Your task to perform on an android device: Open Chrome and go to the settings page Image 0: 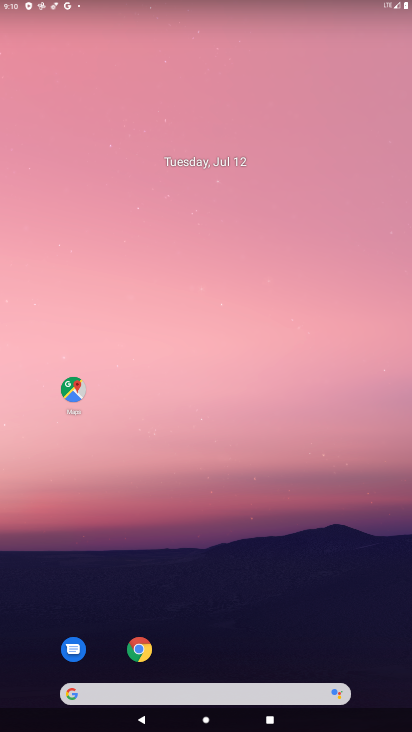
Step 0: click (137, 639)
Your task to perform on an android device: Open Chrome and go to the settings page Image 1: 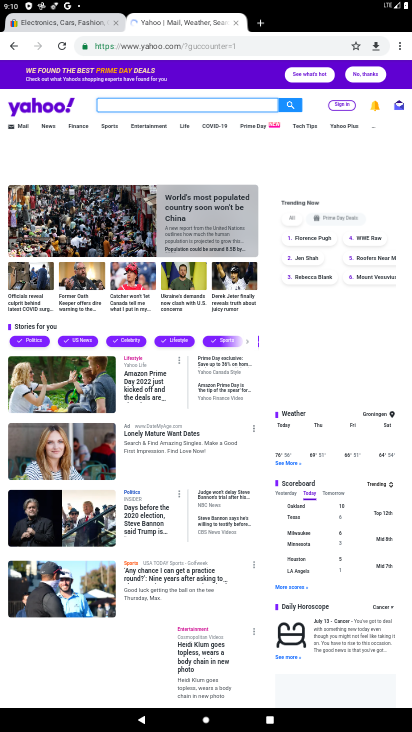
Step 1: click (407, 47)
Your task to perform on an android device: Open Chrome and go to the settings page Image 2: 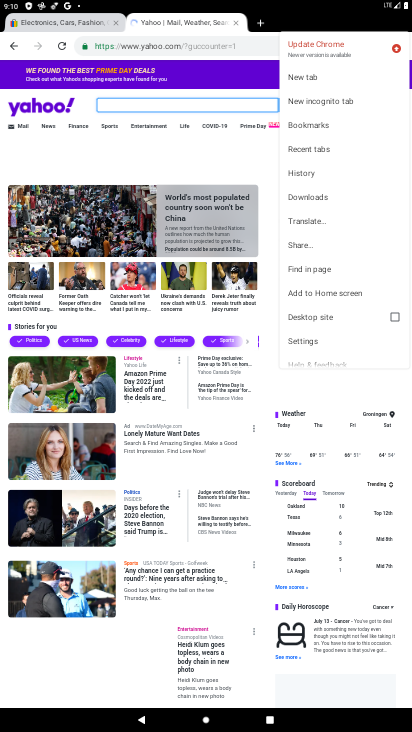
Step 2: click (327, 333)
Your task to perform on an android device: Open Chrome and go to the settings page Image 3: 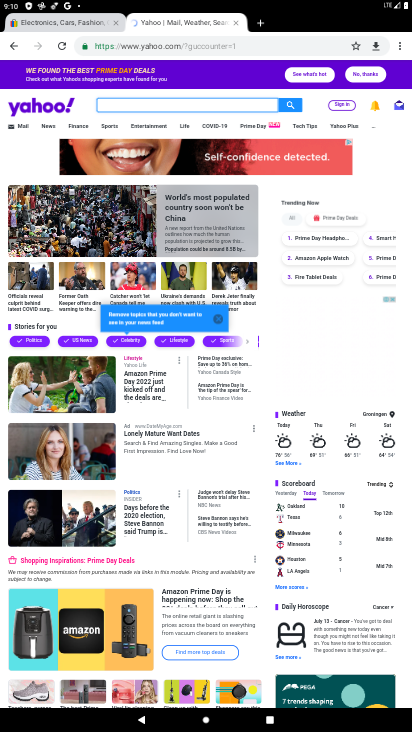
Step 3: task complete